Your task to perform on an android device: Install the Wikipedia app Image 0: 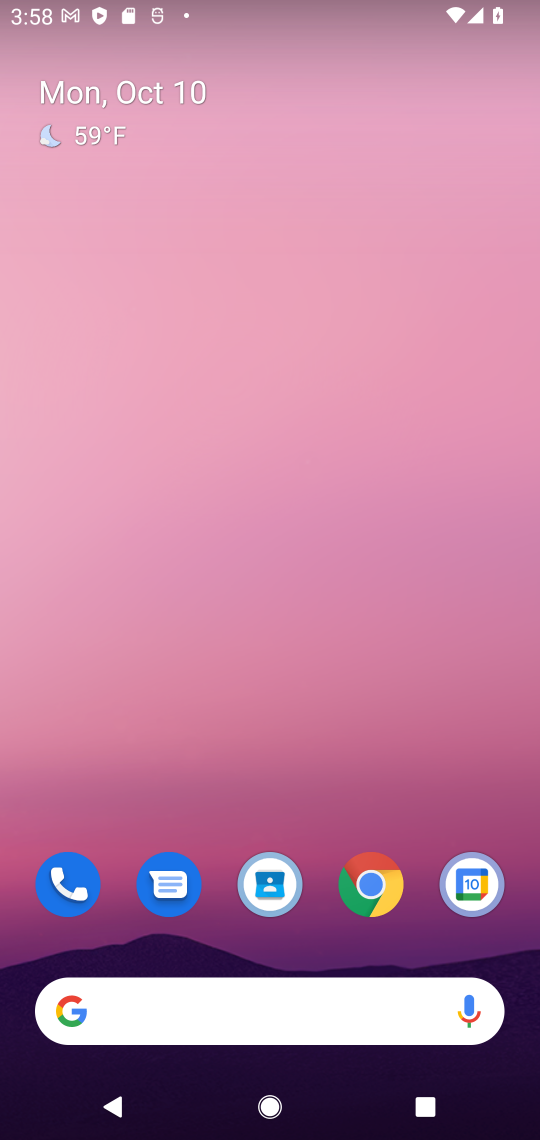
Step 0: drag from (240, 923) to (286, 18)
Your task to perform on an android device: Install the Wikipedia app Image 1: 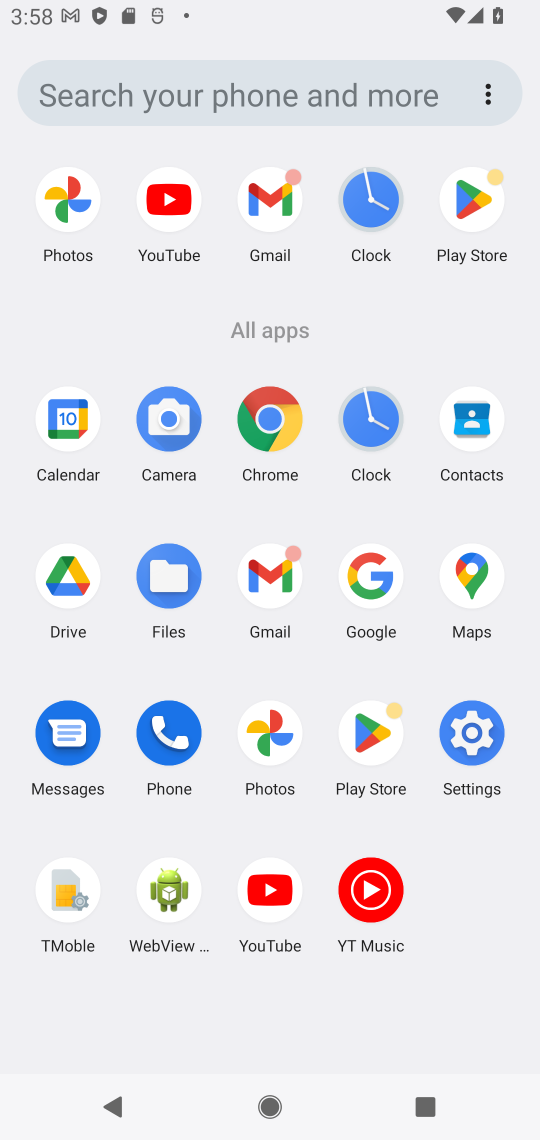
Step 1: click (455, 213)
Your task to perform on an android device: Install the Wikipedia app Image 2: 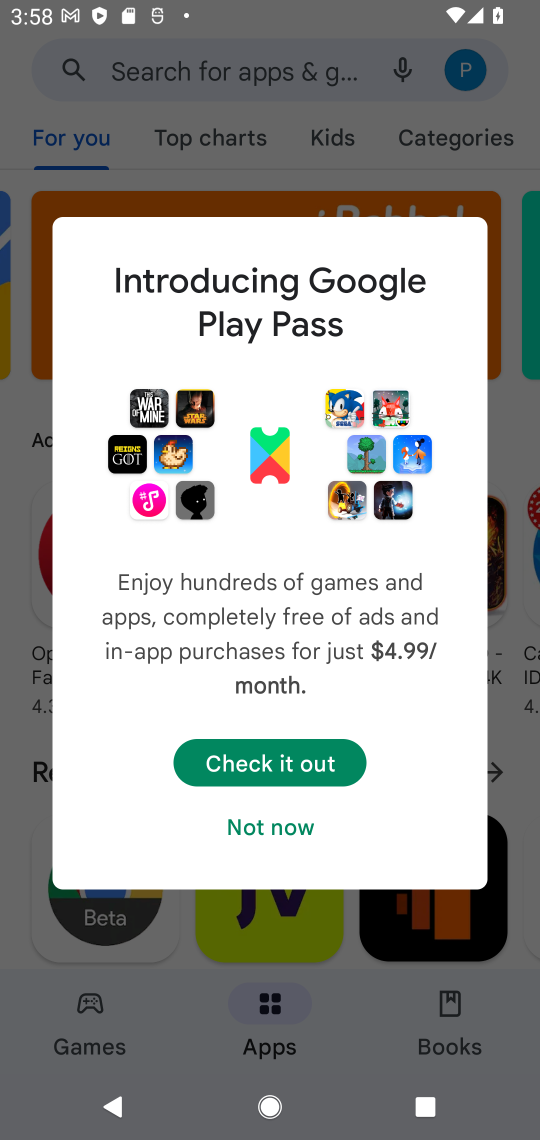
Step 2: click (277, 835)
Your task to perform on an android device: Install the Wikipedia app Image 3: 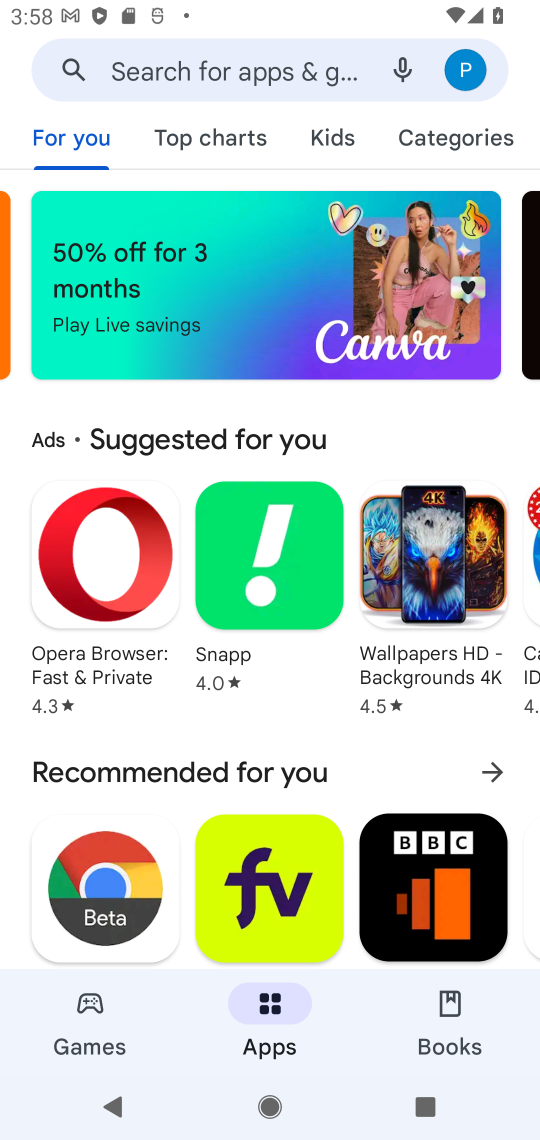
Step 3: click (158, 70)
Your task to perform on an android device: Install the Wikipedia app Image 4: 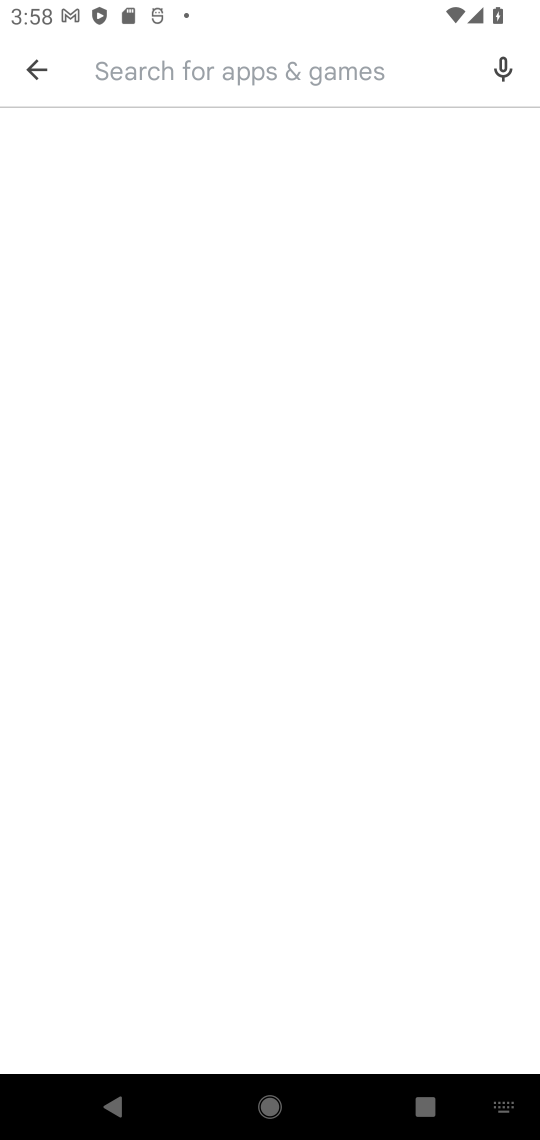
Step 4: type "wikipedia app"
Your task to perform on an android device: Install the Wikipedia app Image 5: 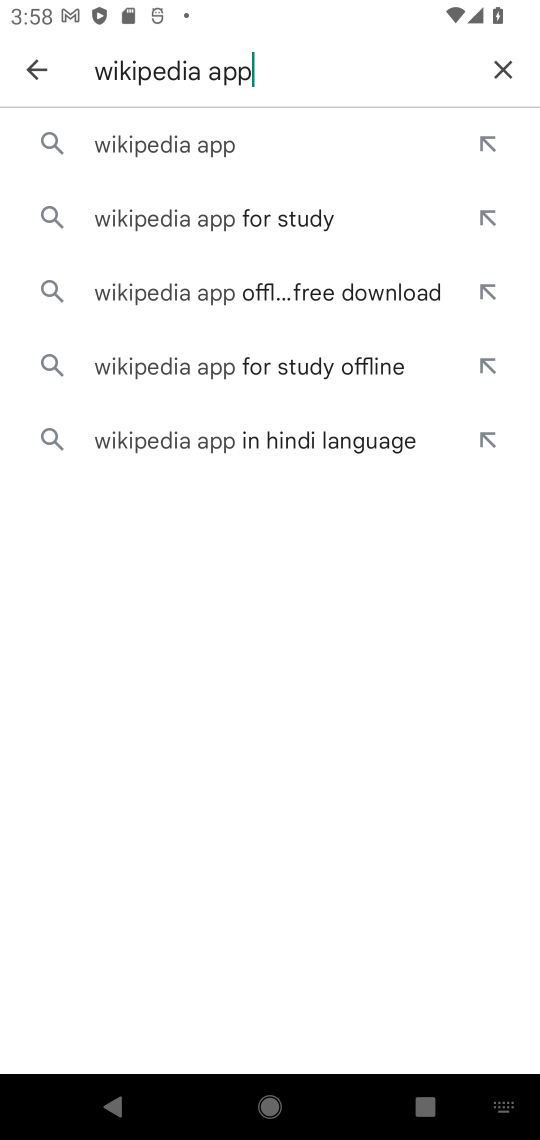
Step 5: click (143, 147)
Your task to perform on an android device: Install the Wikipedia app Image 6: 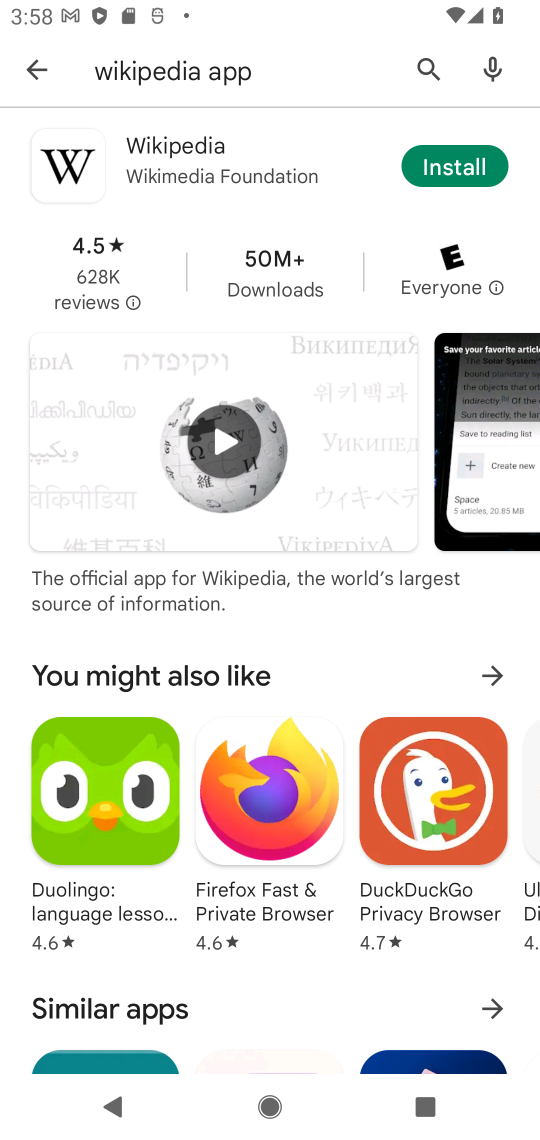
Step 6: click (422, 170)
Your task to perform on an android device: Install the Wikipedia app Image 7: 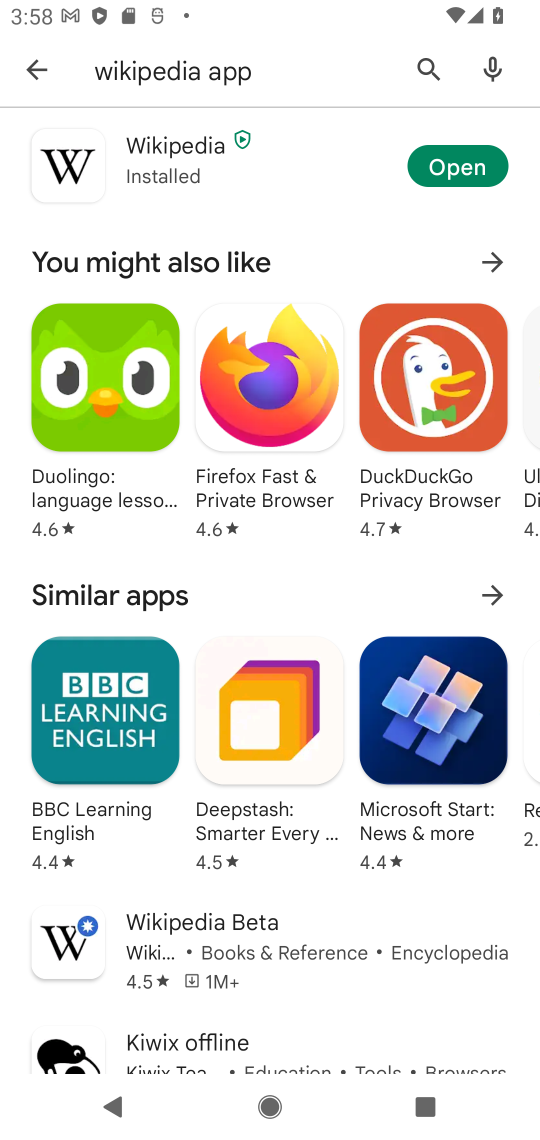
Step 7: task complete